Your task to perform on an android device: Open Reddit.com Image 0: 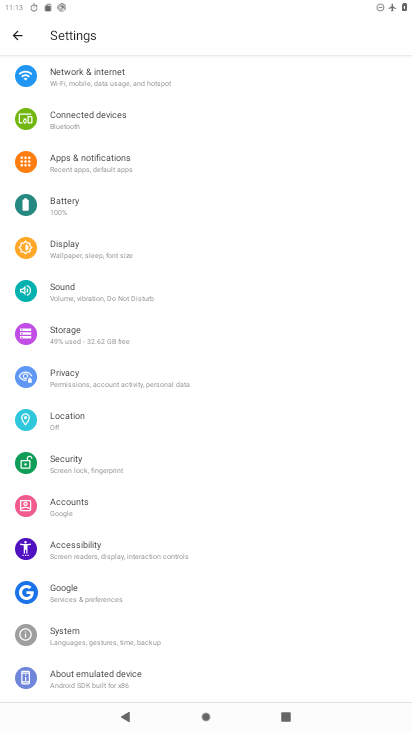
Step 0: press home button
Your task to perform on an android device: Open Reddit.com Image 1: 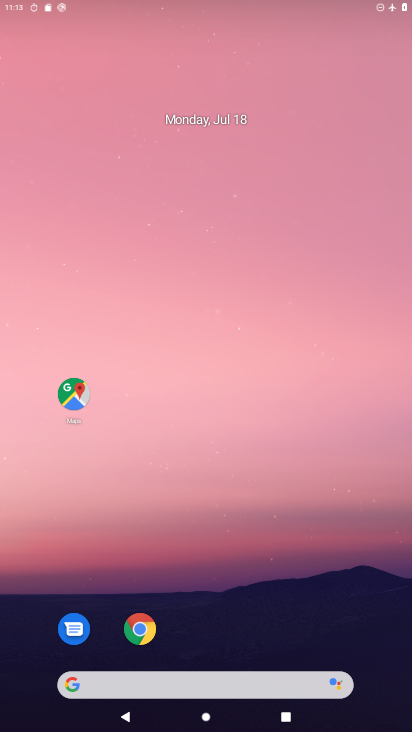
Step 1: drag from (244, 621) to (100, 74)
Your task to perform on an android device: Open Reddit.com Image 2: 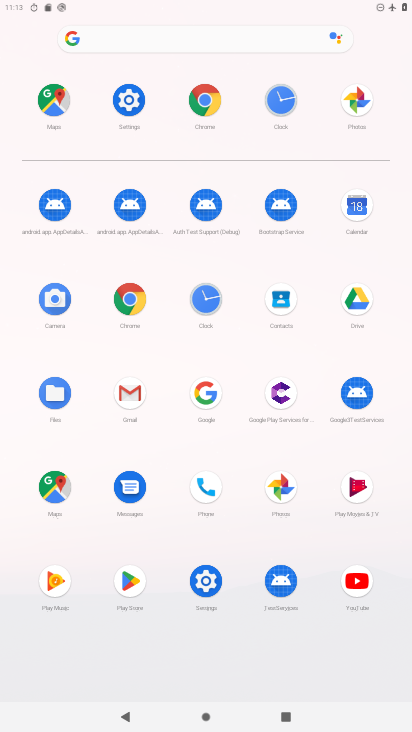
Step 2: click (200, 100)
Your task to perform on an android device: Open Reddit.com Image 3: 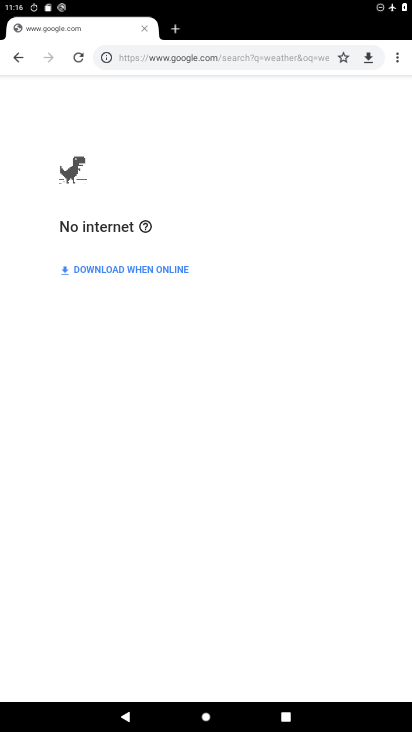
Step 3: click (263, 59)
Your task to perform on an android device: Open Reddit.com Image 4: 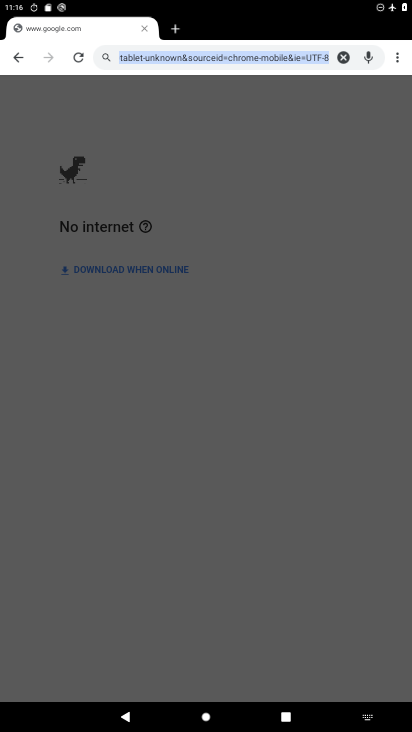
Step 4: type "reddit.com"
Your task to perform on an android device: Open Reddit.com Image 5: 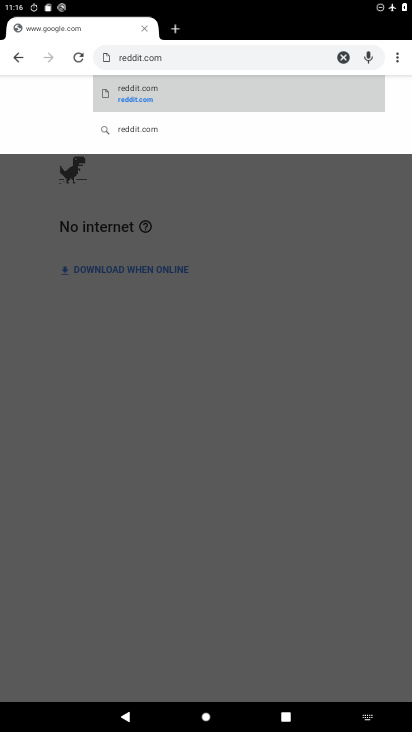
Step 5: click (225, 90)
Your task to perform on an android device: Open Reddit.com Image 6: 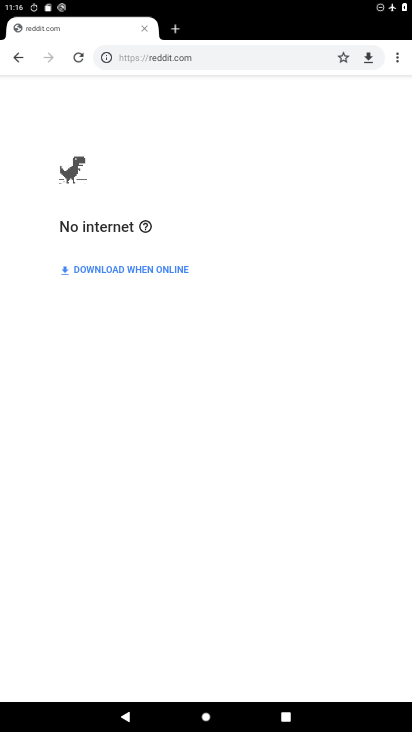
Step 6: task complete